Your task to perform on an android device: Open privacy settings Image 0: 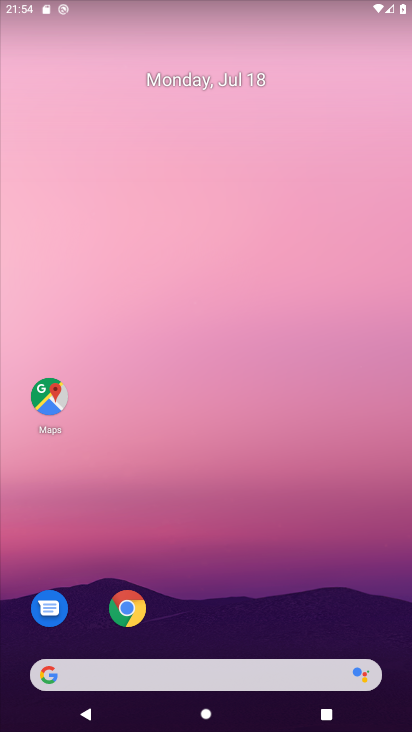
Step 0: click (117, 610)
Your task to perform on an android device: Open privacy settings Image 1: 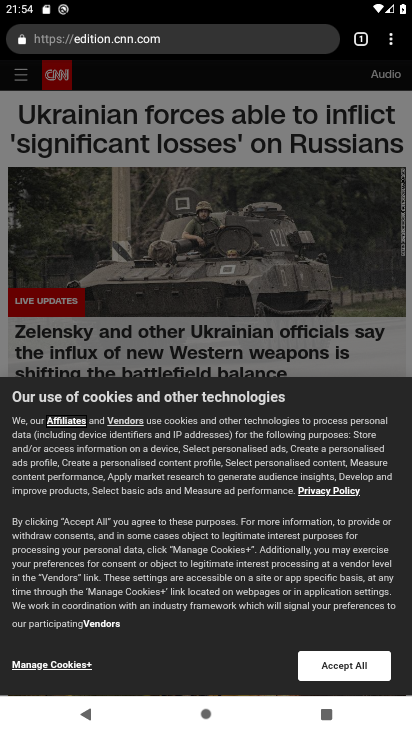
Step 1: drag from (392, 39) to (286, 426)
Your task to perform on an android device: Open privacy settings Image 2: 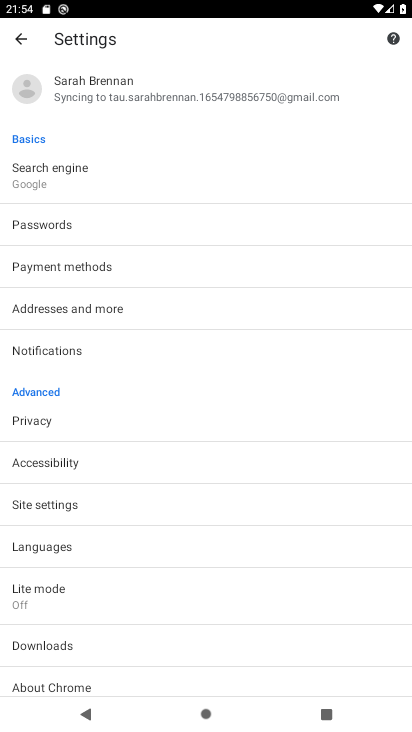
Step 2: click (82, 430)
Your task to perform on an android device: Open privacy settings Image 3: 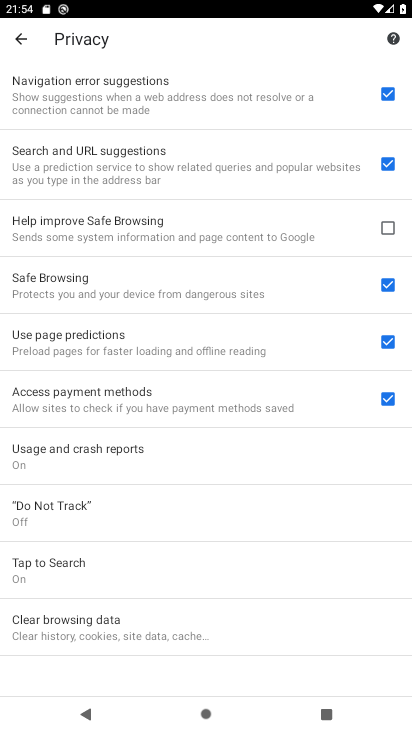
Step 3: task complete